Your task to perform on an android device: Do I have any events tomorrow? Image 0: 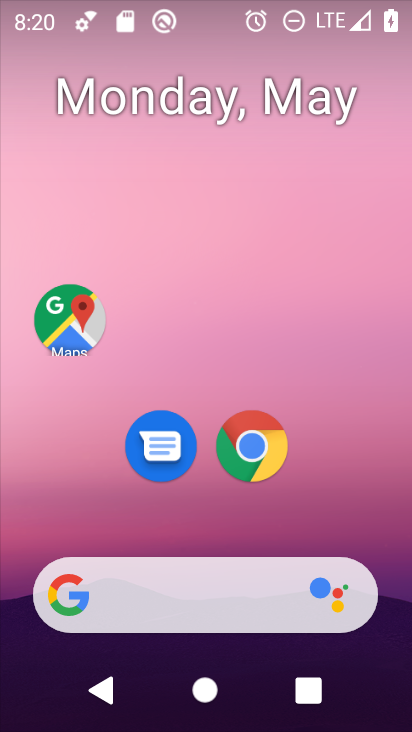
Step 0: drag from (348, 502) to (218, 8)
Your task to perform on an android device: Do I have any events tomorrow? Image 1: 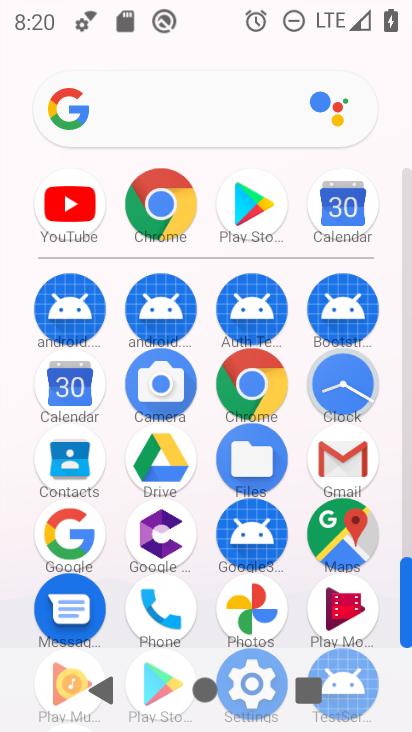
Step 1: click (71, 381)
Your task to perform on an android device: Do I have any events tomorrow? Image 2: 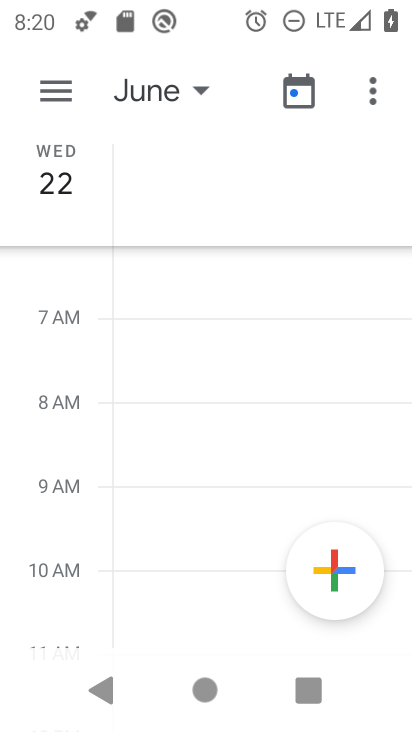
Step 2: click (194, 84)
Your task to perform on an android device: Do I have any events tomorrow? Image 3: 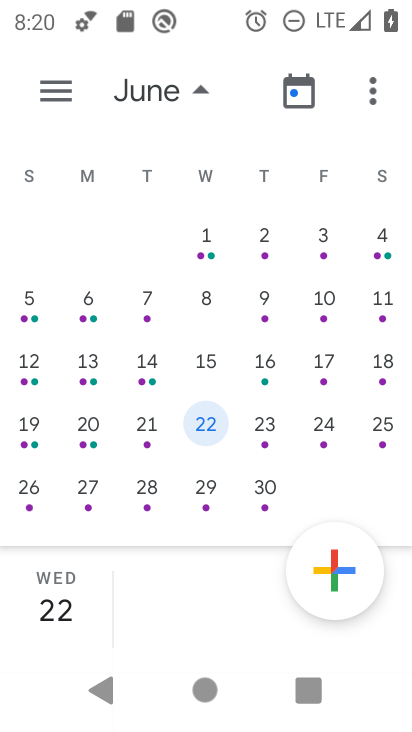
Step 3: drag from (188, 309) to (402, 373)
Your task to perform on an android device: Do I have any events tomorrow? Image 4: 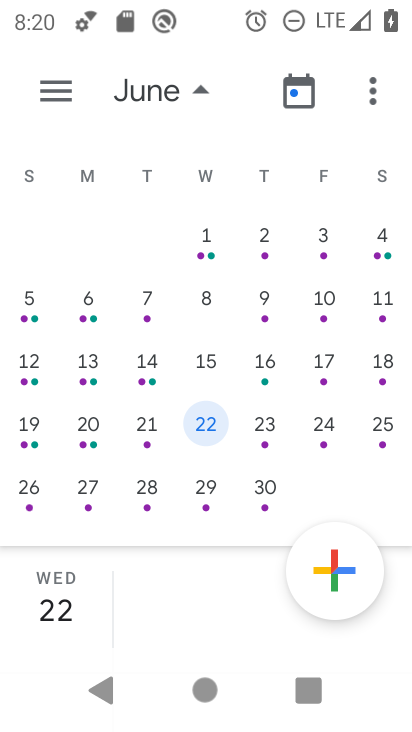
Step 4: drag from (43, 310) to (369, 439)
Your task to perform on an android device: Do I have any events tomorrow? Image 5: 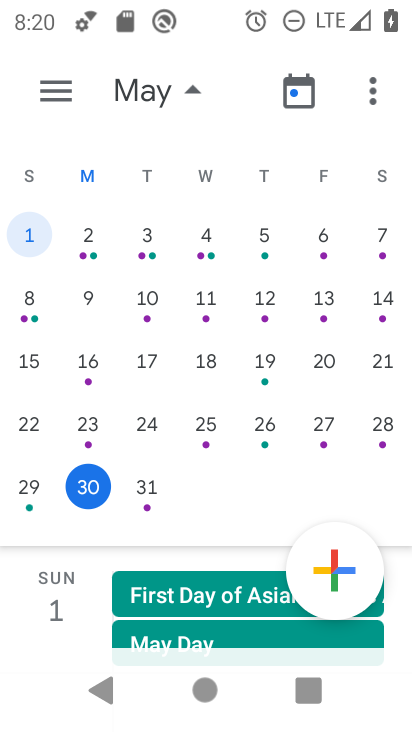
Step 5: click (139, 488)
Your task to perform on an android device: Do I have any events tomorrow? Image 6: 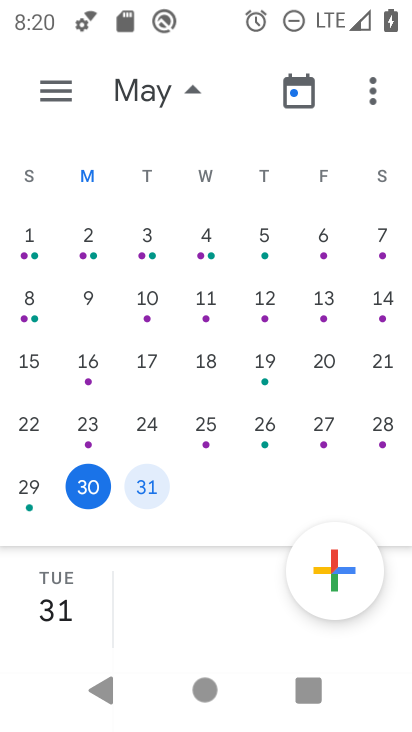
Step 6: task complete